Your task to perform on an android device: snooze an email in the gmail app Image 0: 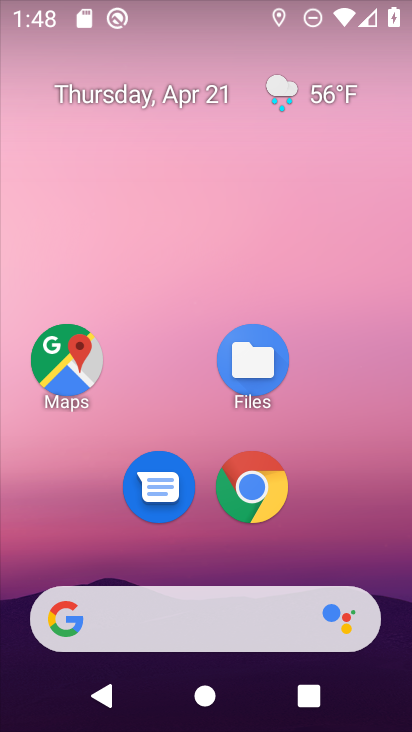
Step 0: drag from (371, 555) to (385, 102)
Your task to perform on an android device: snooze an email in the gmail app Image 1: 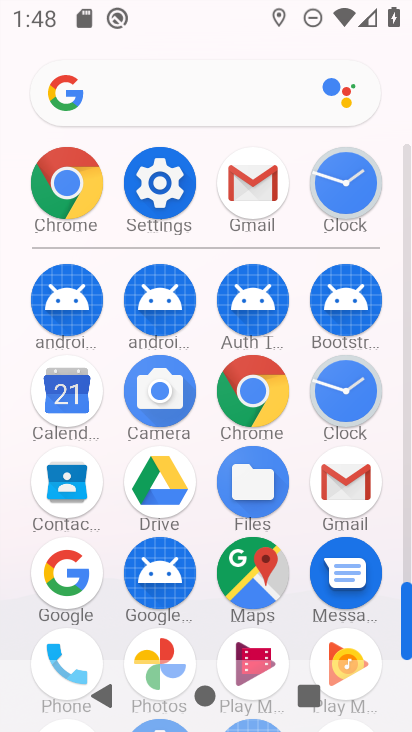
Step 1: click (350, 482)
Your task to perform on an android device: snooze an email in the gmail app Image 2: 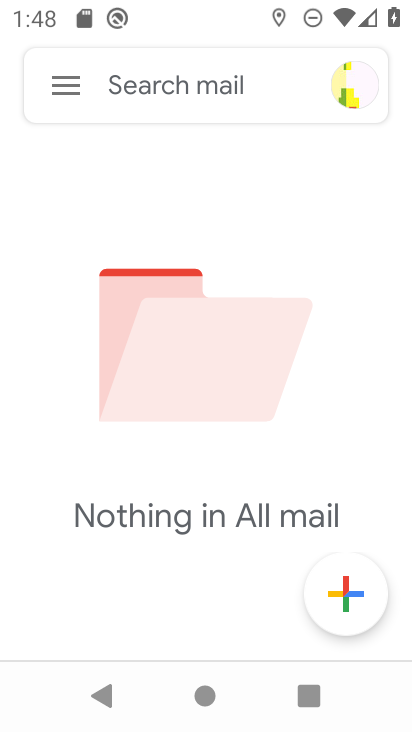
Step 2: task complete